Your task to perform on an android device: Go to settings Image 0: 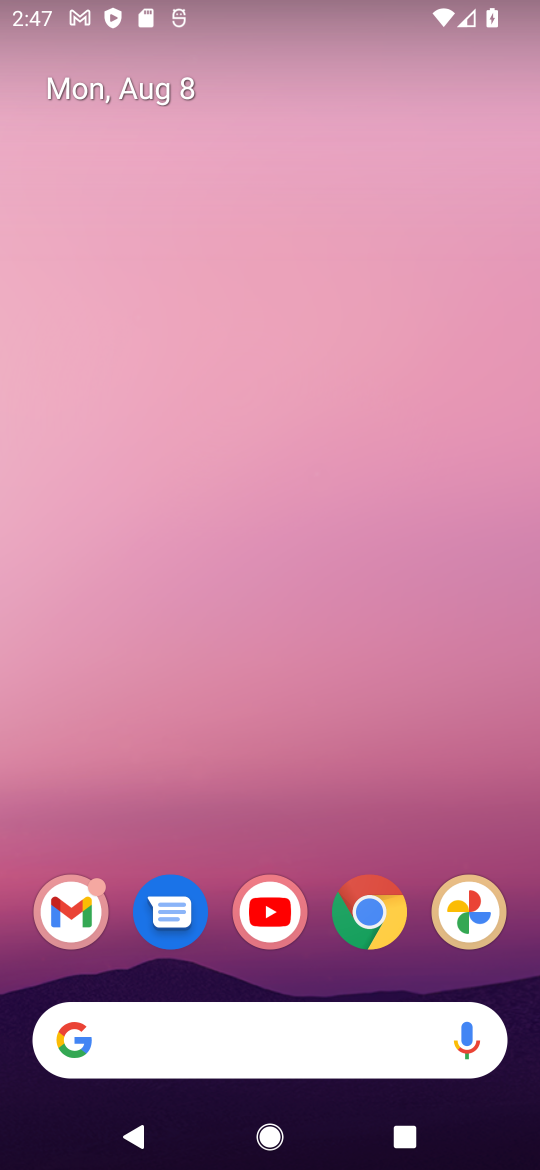
Step 0: click (364, 84)
Your task to perform on an android device: Go to settings Image 1: 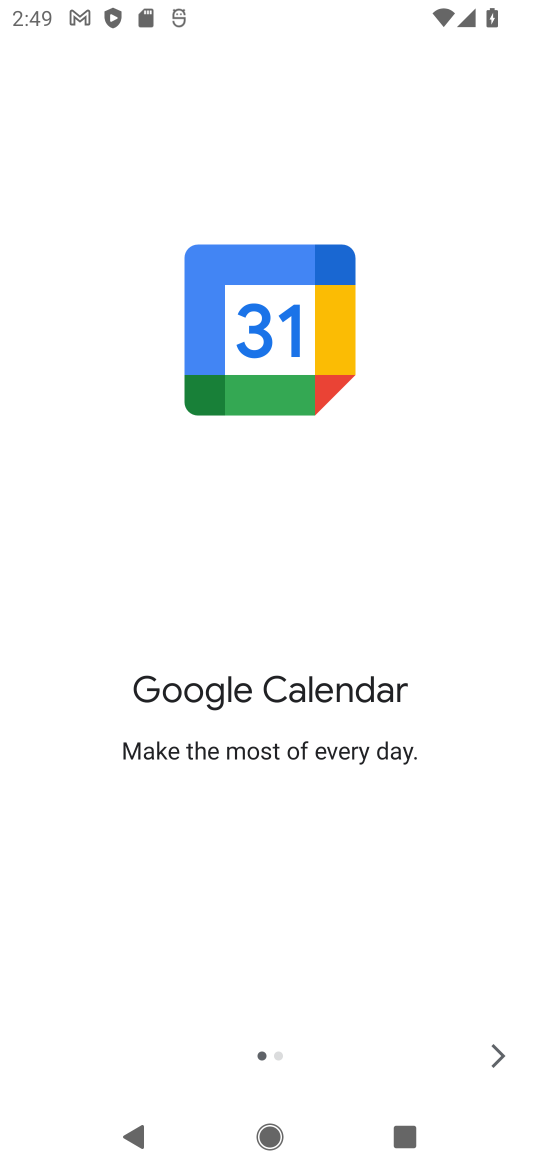
Step 1: click (490, 1046)
Your task to perform on an android device: Go to settings Image 2: 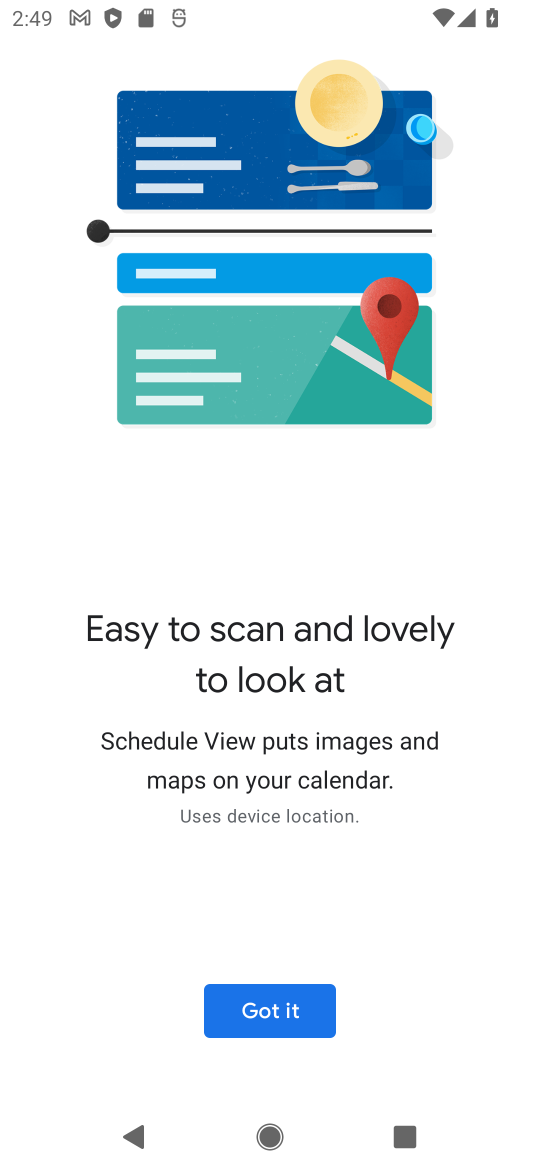
Step 2: press home button
Your task to perform on an android device: Go to settings Image 3: 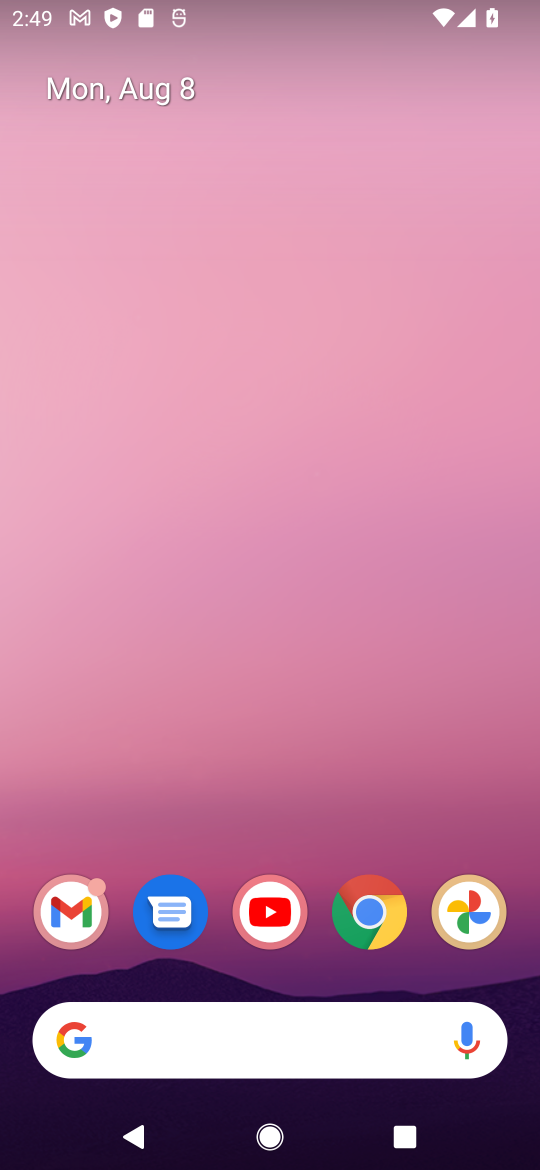
Step 3: drag from (123, 707) to (337, 91)
Your task to perform on an android device: Go to settings Image 4: 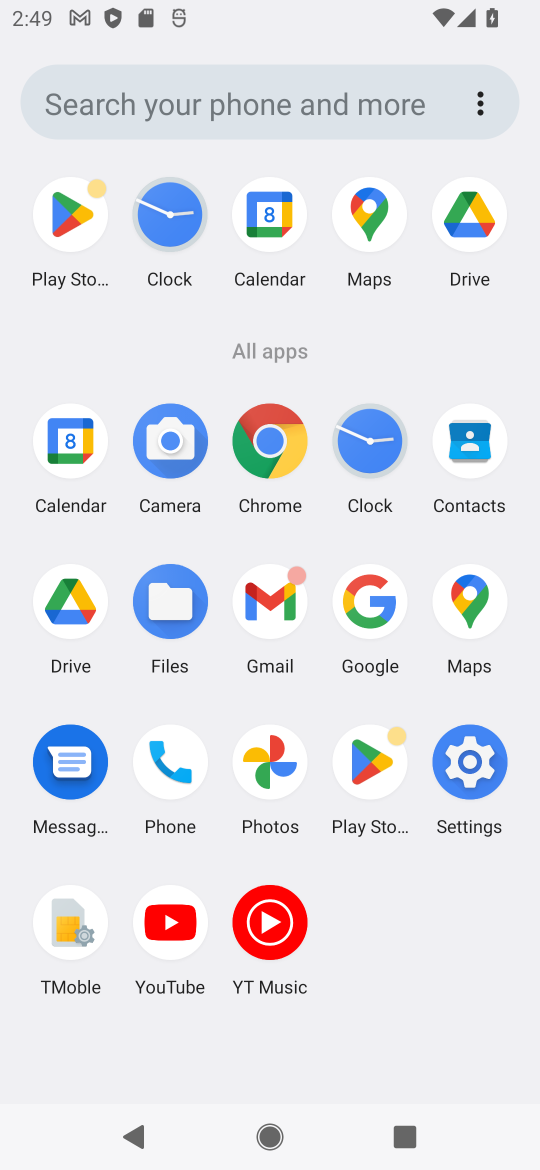
Step 4: click (431, 769)
Your task to perform on an android device: Go to settings Image 5: 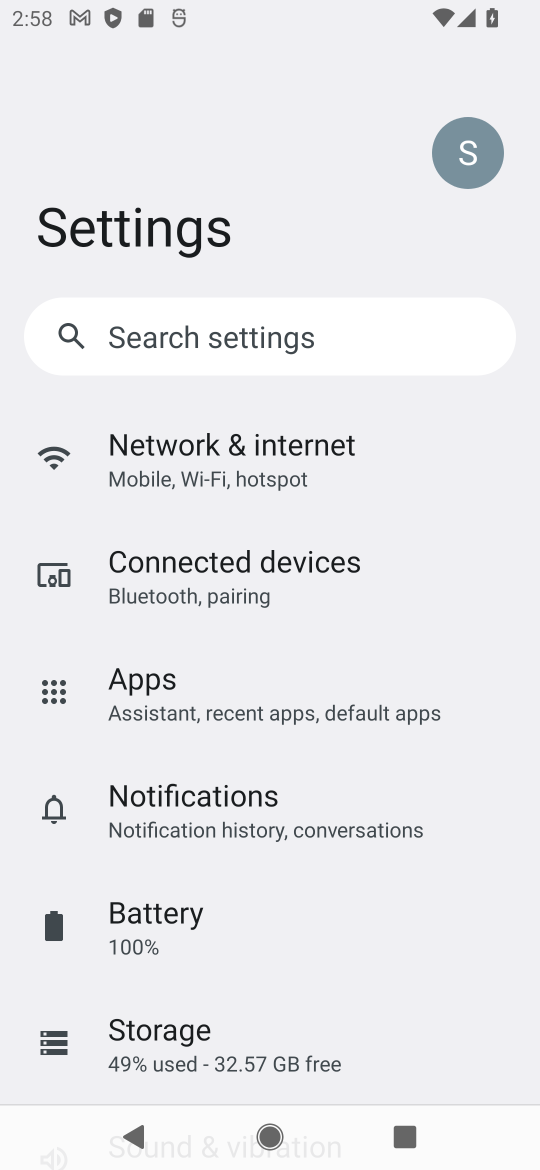
Step 5: task complete